Your task to perform on an android device: find photos in the google photos app Image 0: 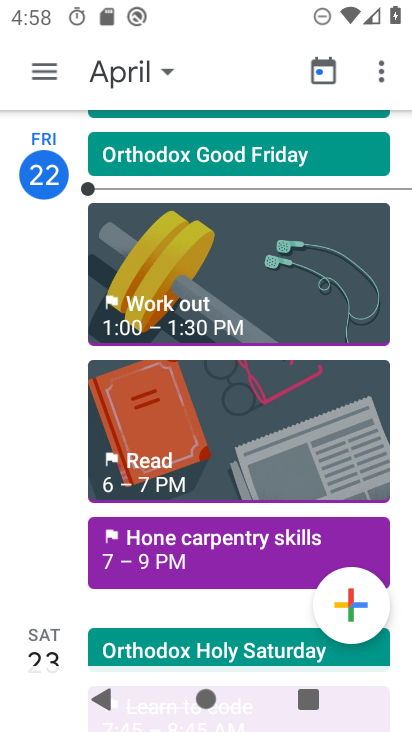
Step 0: press back button
Your task to perform on an android device: find photos in the google photos app Image 1: 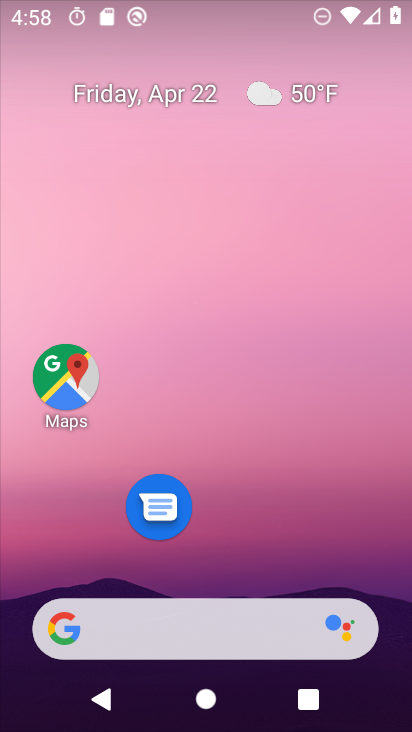
Step 1: drag from (205, 541) to (282, 79)
Your task to perform on an android device: find photos in the google photos app Image 2: 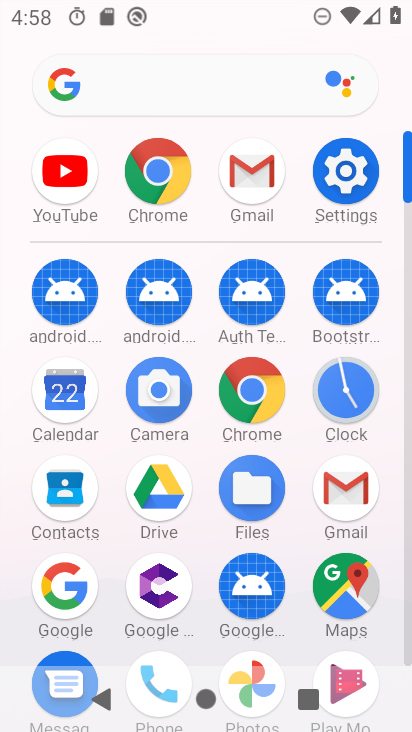
Step 2: click (252, 658)
Your task to perform on an android device: find photos in the google photos app Image 3: 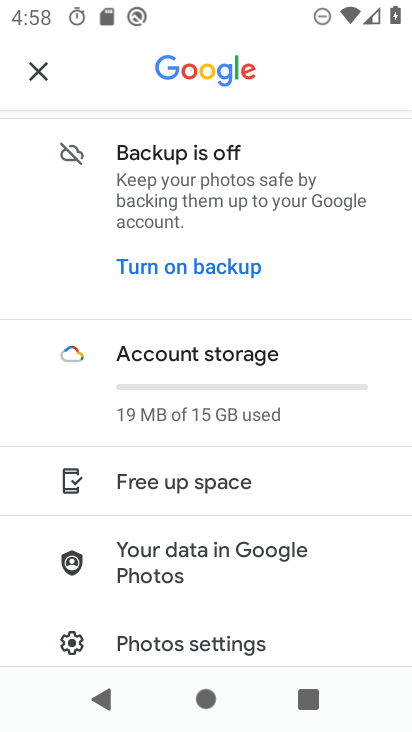
Step 3: click (35, 67)
Your task to perform on an android device: find photos in the google photos app Image 4: 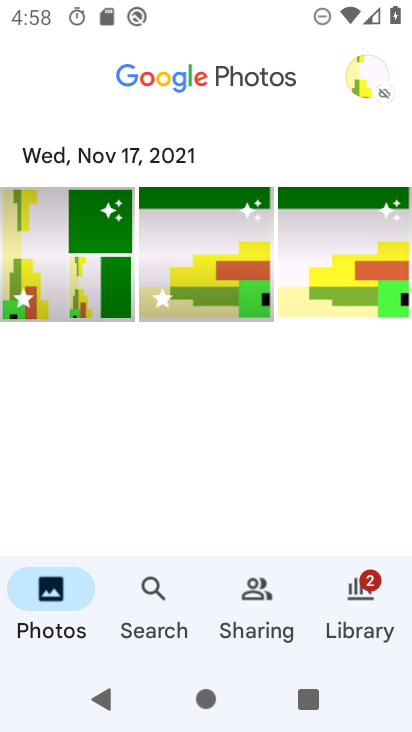
Step 4: task complete